Your task to perform on an android device: uninstall "Adobe Express: Graphic Design" Image 0: 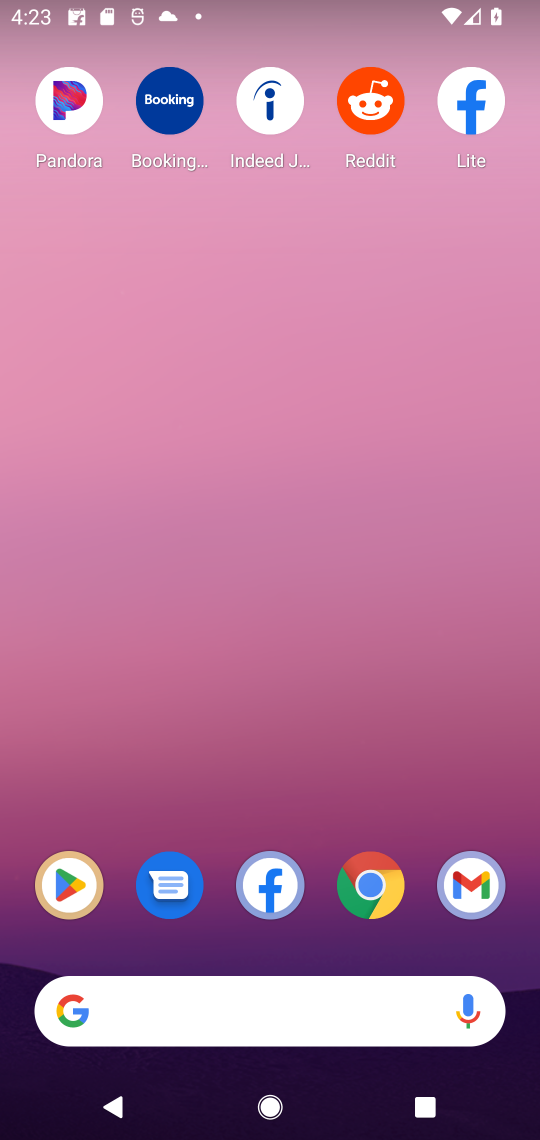
Step 0: click (81, 883)
Your task to perform on an android device: uninstall "Adobe Express: Graphic Design" Image 1: 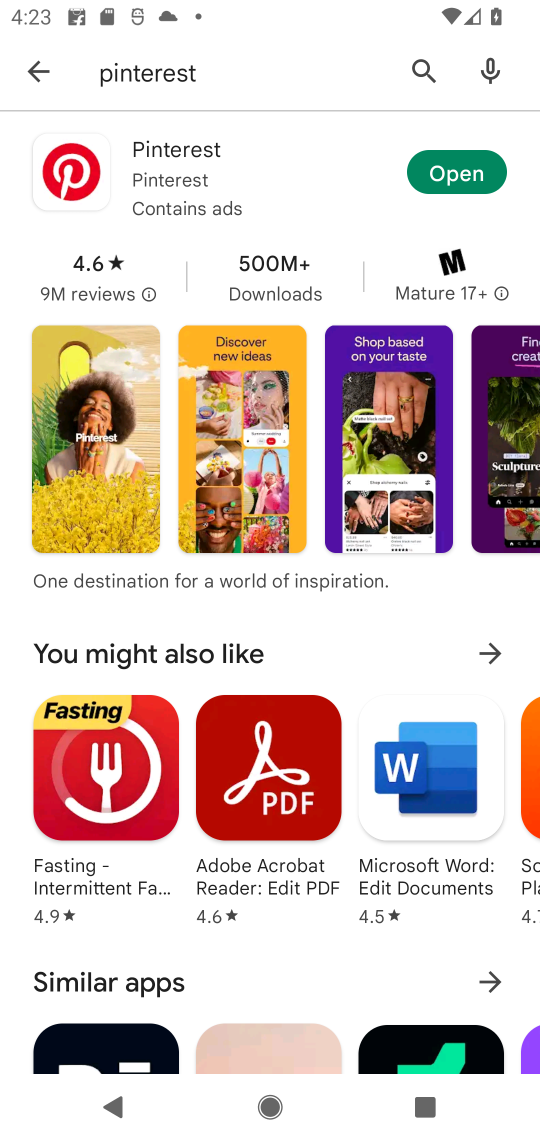
Step 1: drag from (98, 1126) to (535, 264)
Your task to perform on an android device: uninstall "Adobe Express: Graphic Design" Image 2: 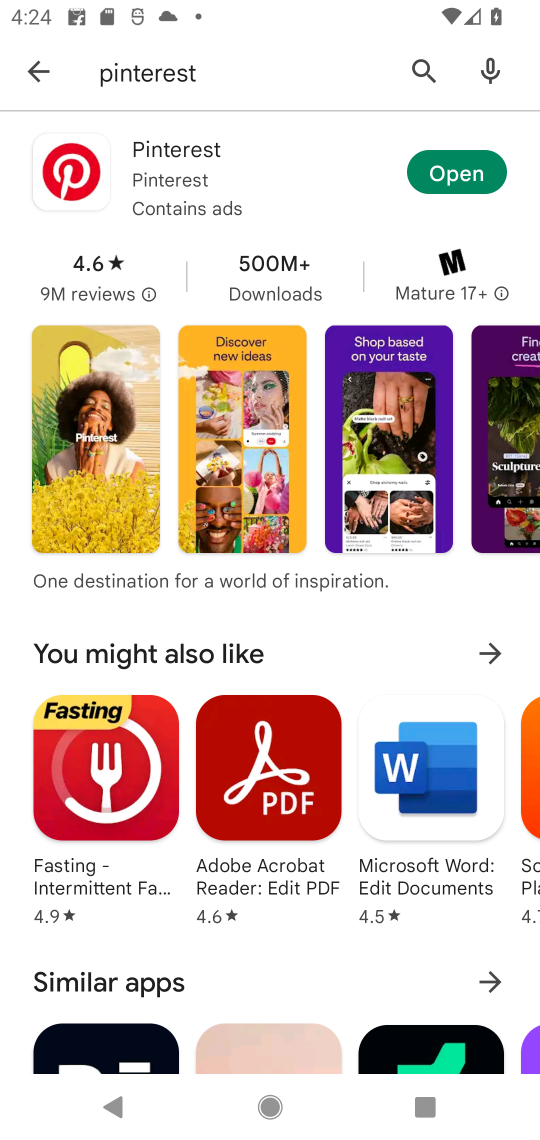
Step 2: click (427, 67)
Your task to perform on an android device: uninstall "Adobe Express: Graphic Design" Image 3: 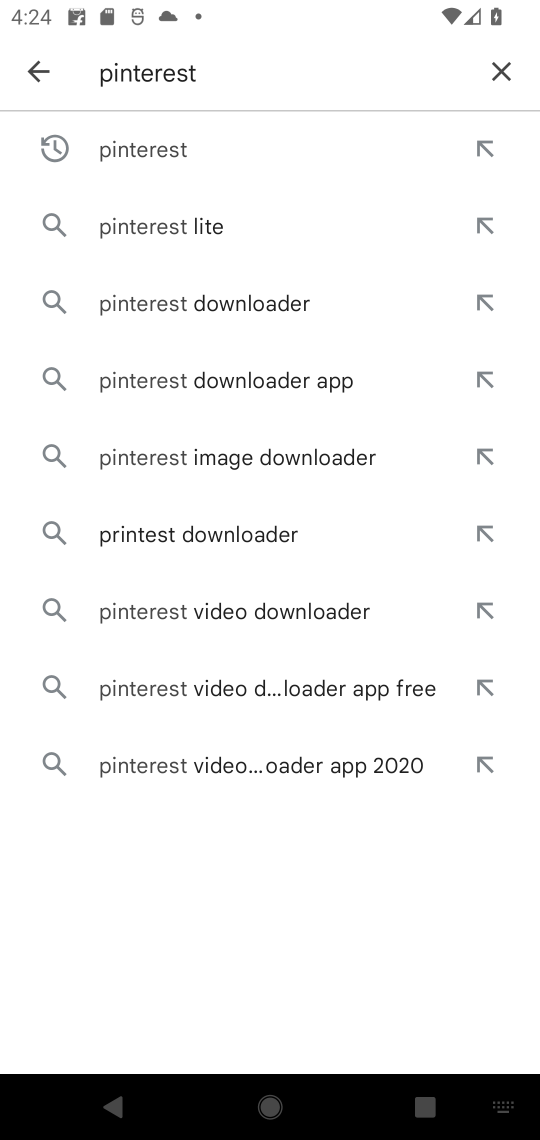
Step 3: click (499, 60)
Your task to perform on an android device: uninstall "Adobe Express: Graphic Design" Image 4: 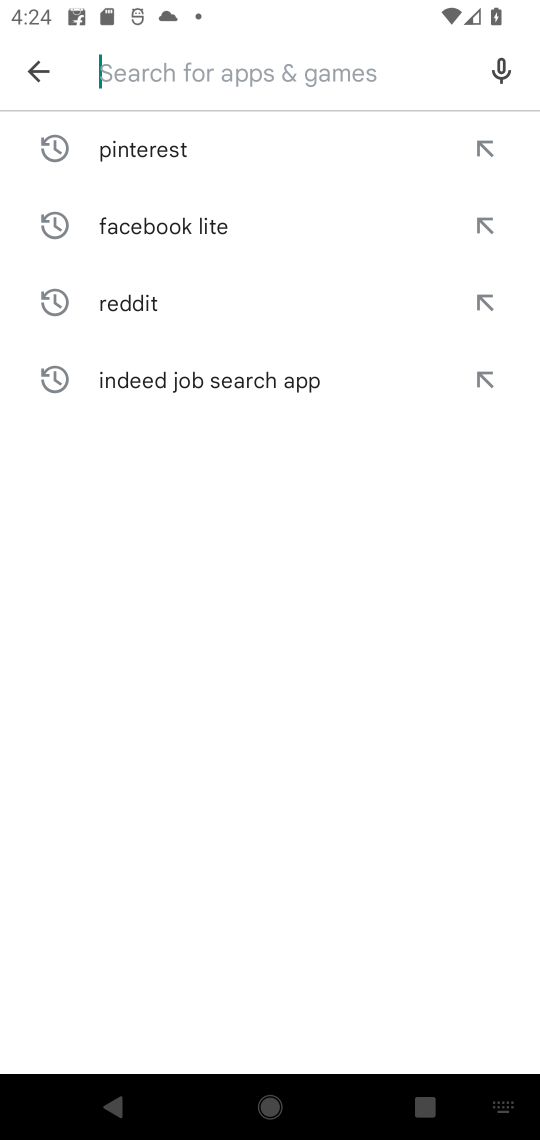
Step 4: type "Adobe Express: Graphic Design"
Your task to perform on an android device: uninstall "Adobe Express: Graphic Design" Image 5: 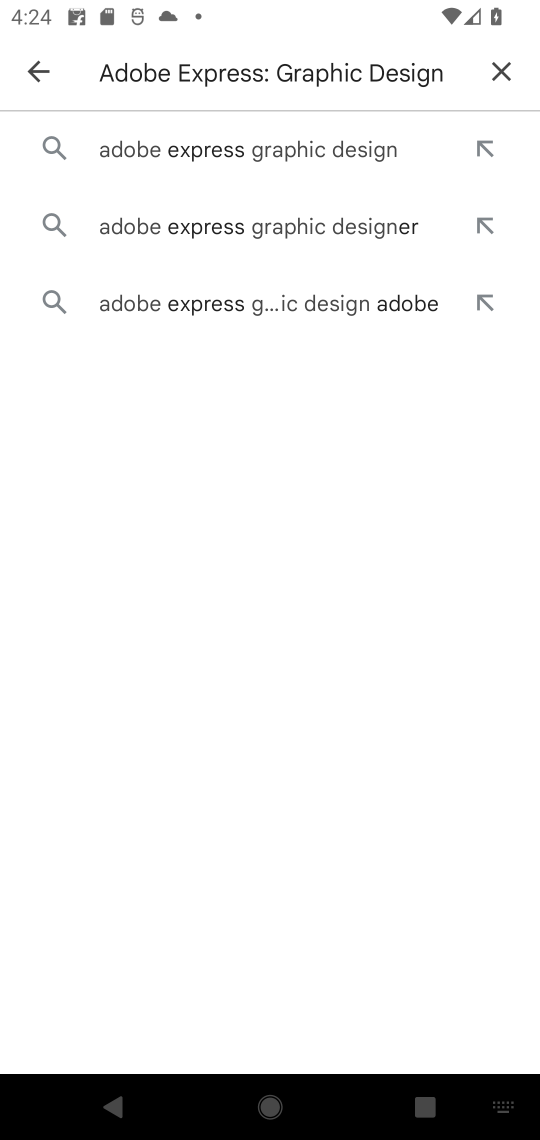
Step 5: click (423, 149)
Your task to perform on an android device: uninstall "Adobe Express: Graphic Design" Image 6: 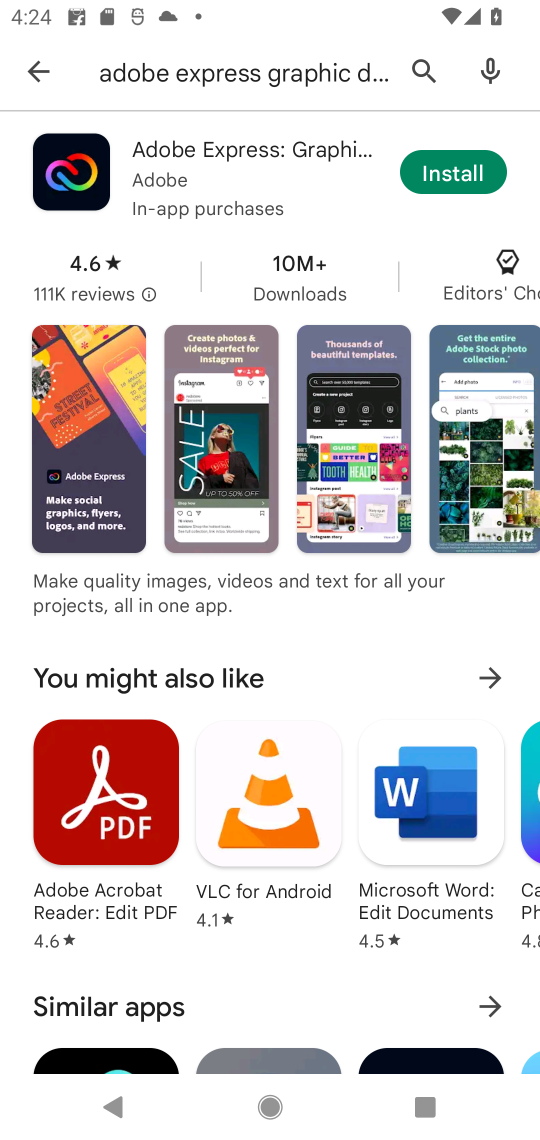
Step 6: task complete